Your task to perform on an android device: open device folders in google photos Image 0: 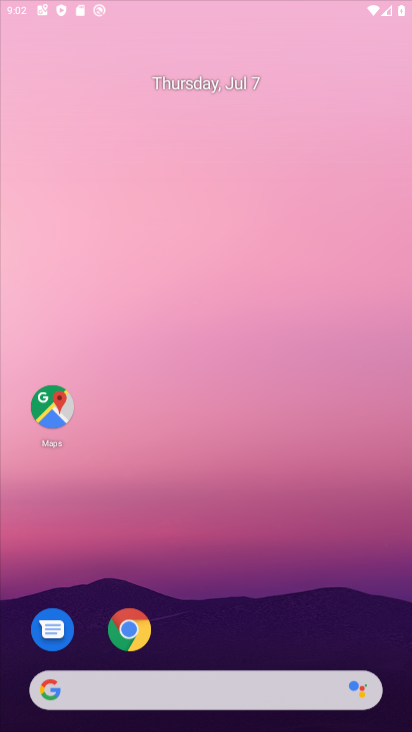
Step 0: click (303, 303)
Your task to perform on an android device: open device folders in google photos Image 1: 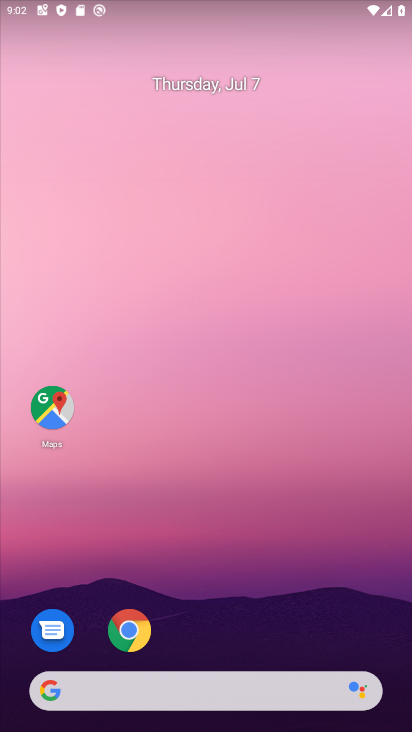
Step 1: drag from (192, 640) to (247, 60)
Your task to perform on an android device: open device folders in google photos Image 2: 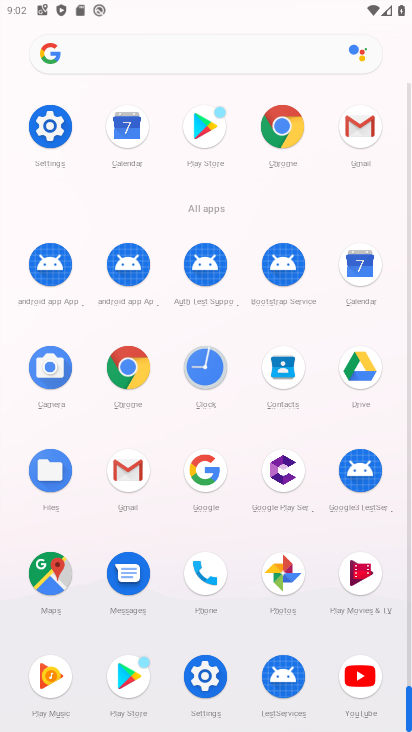
Step 2: click (284, 578)
Your task to perform on an android device: open device folders in google photos Image 3: 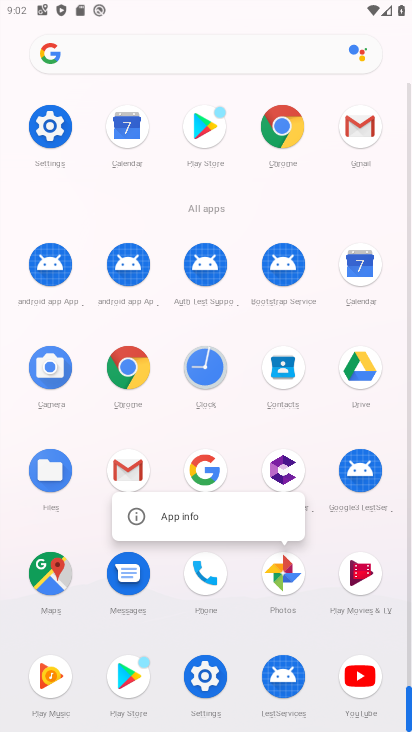
Step 3: click (209, 514)
Your task to perform on an android device: open device folders in google photos Image 4: 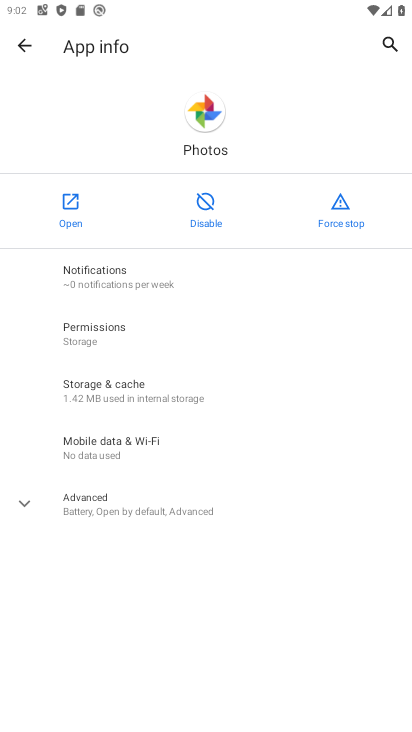
Step 4: click (67, 211)
Your task to perform on an android device: open device folders in google photos Image 5: 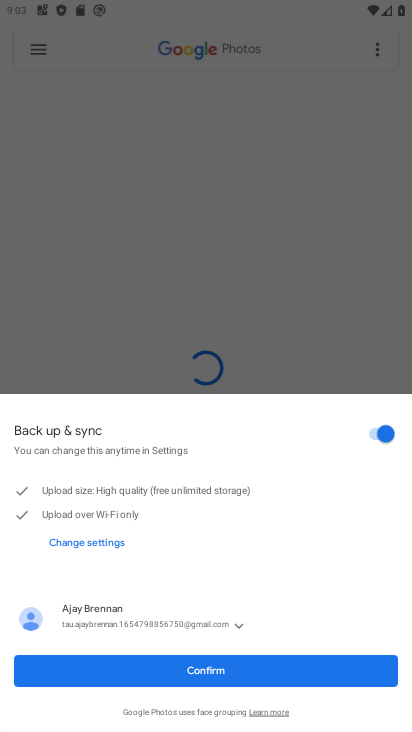
Step 5: click (284, 341)
Your task to perform on an android device: open device folders in google photos Image 6: 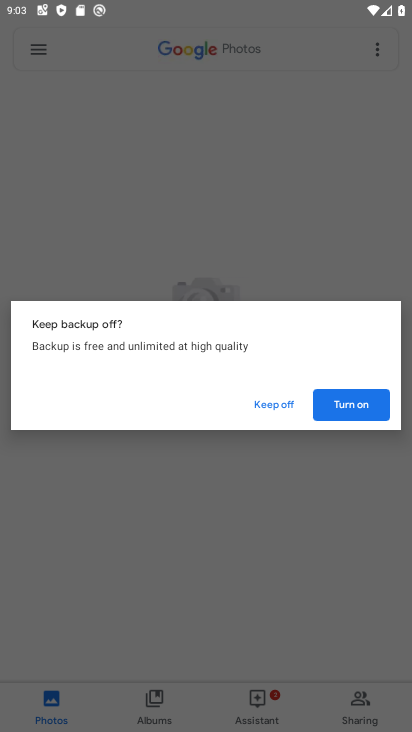
Step 6: click (258, 401)
Your task to perform on an android device: open device folders in google photos Image 7: 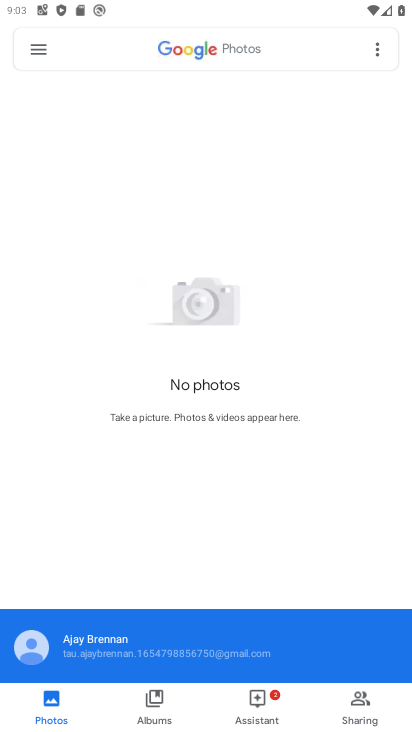
Step 7: press home button
Your task to perform on an android device: open device folders in google photos Image 8: 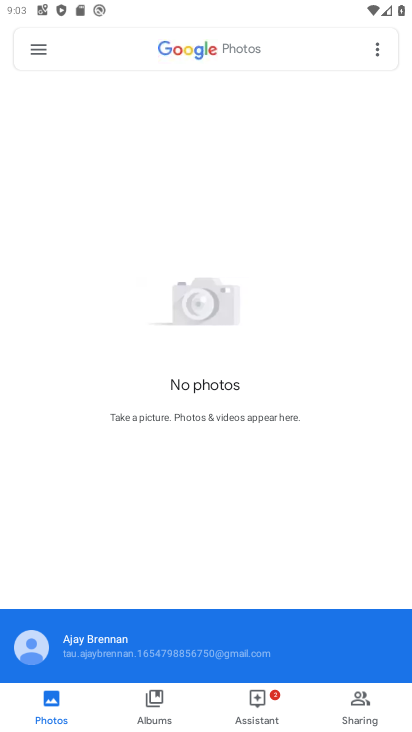
Step 8: drag from (172, 573) to (240, 211)
Your task to perform on an android device: open device folders in google photos Image 9: 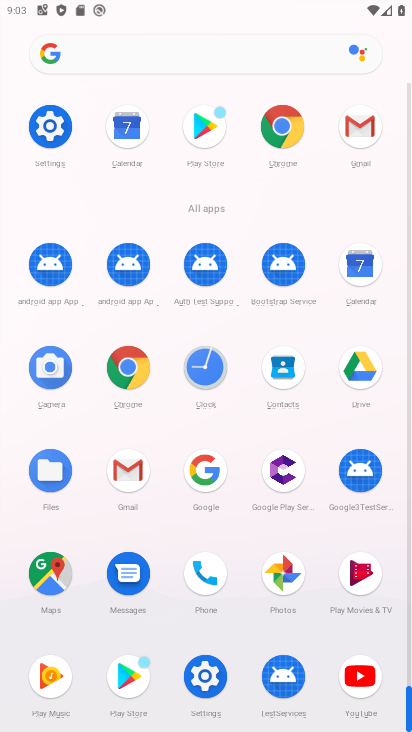
Step 9: click (288, 580)
Your task to perform on an android device: open device folders in google photos Image 10: 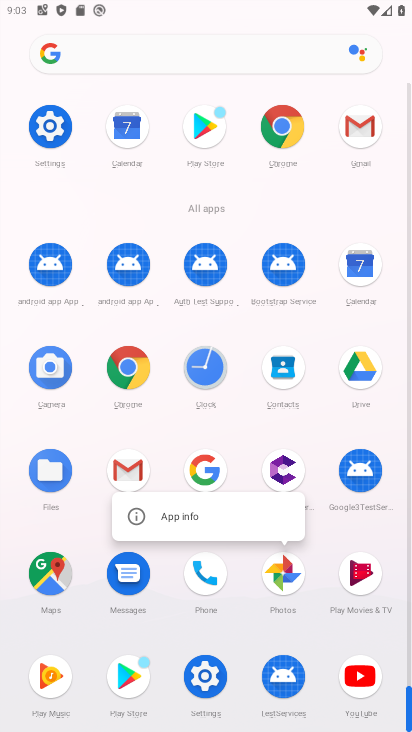
Step 10: click (161, 512)
Your task to perform on an android device: open device folders in google photos Image 11: 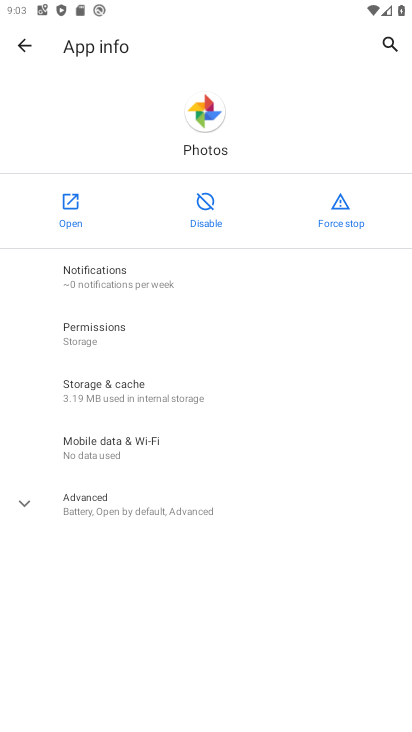
Step 11: click (72, 219)
Your task to perform on an android device: open device folders in google photos Image 12: 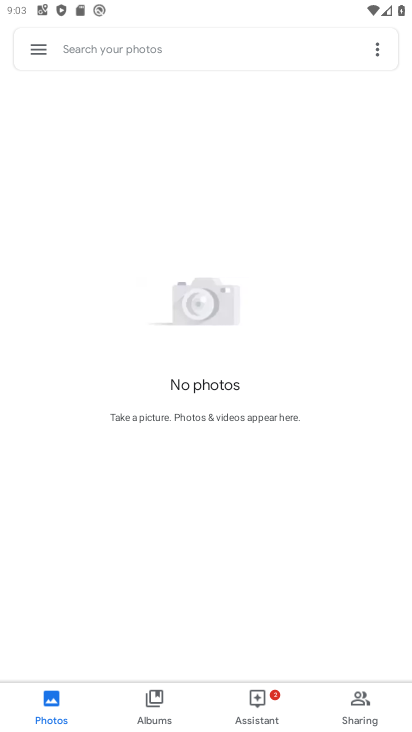
Step 12: drag from (176, 594) to (244, 363)
Your task to perform on an android device: open device folders in google photos Image 13: 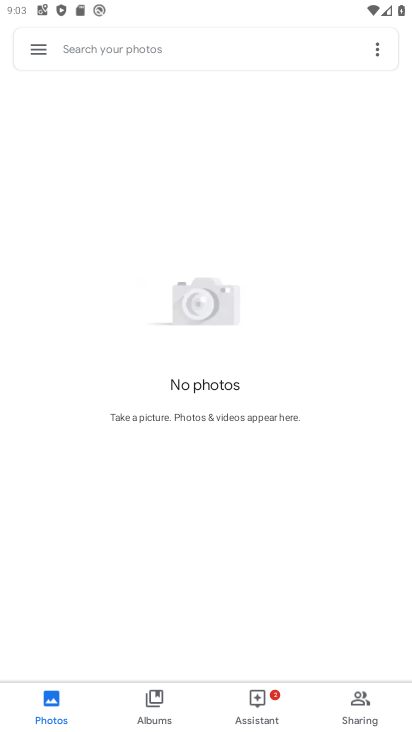
Step 13: click (29, 53)
Your task to perform on an android device: open device folders in google photos Image 14: 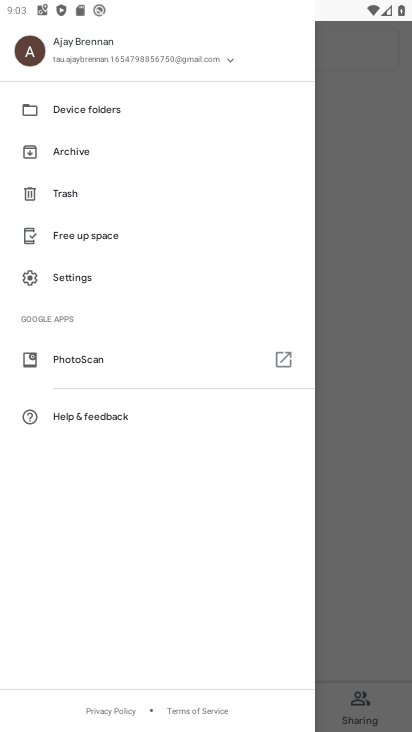
Step 14: click (102, 104)
Your task to perform on an android device: open device folders in google photos Image 15: 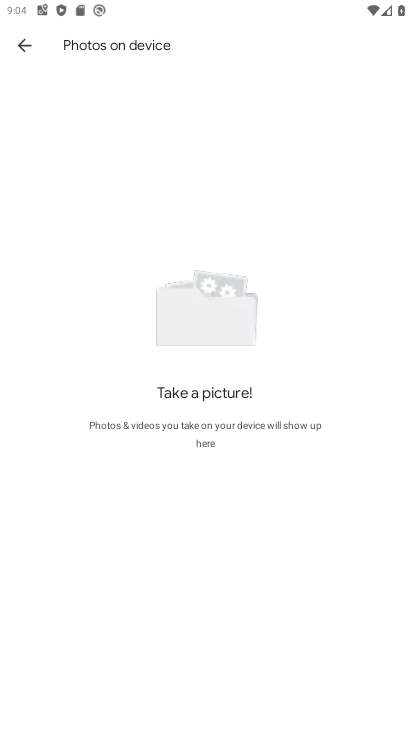
Step 15: task complete